Your task to perform on an android device: turn off location history Image 0: 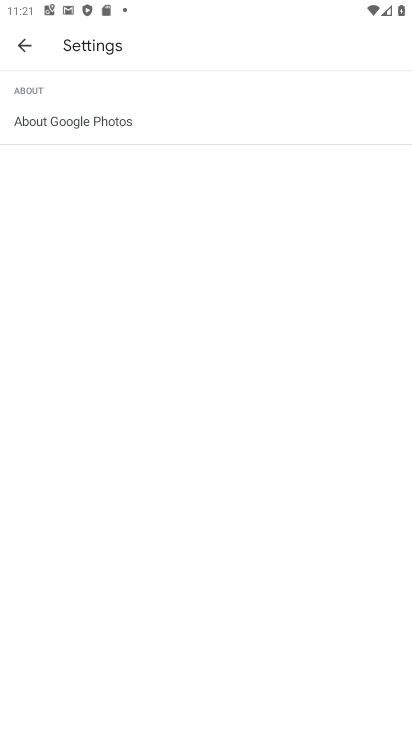
Step 0: press home button
Your task to perform on an android device: turn off location history Image 1: 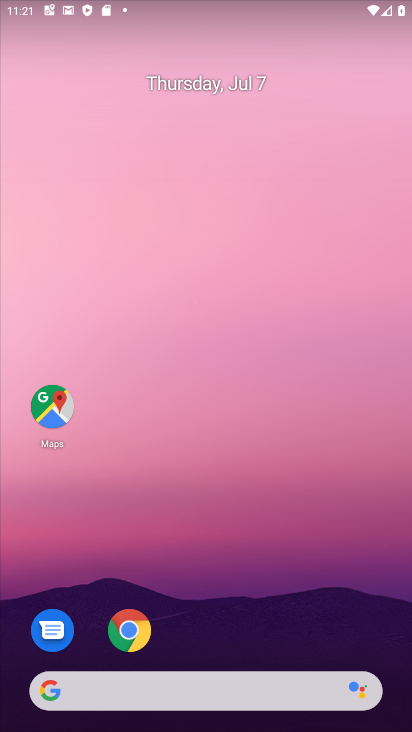
Step 1: drag from (201, 518) to (201, 246)
Your task to perform on an android device: turn off location history Image 2: 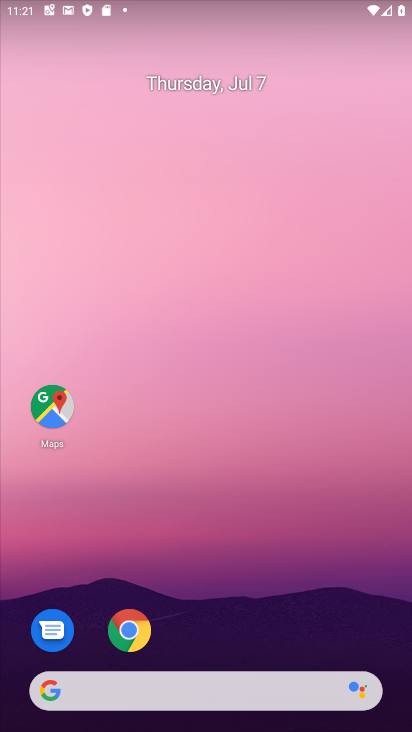
Step 2: drag from (195, 644) to (181, 124)
Your task to perform on an android device: turn off location history Image 3: 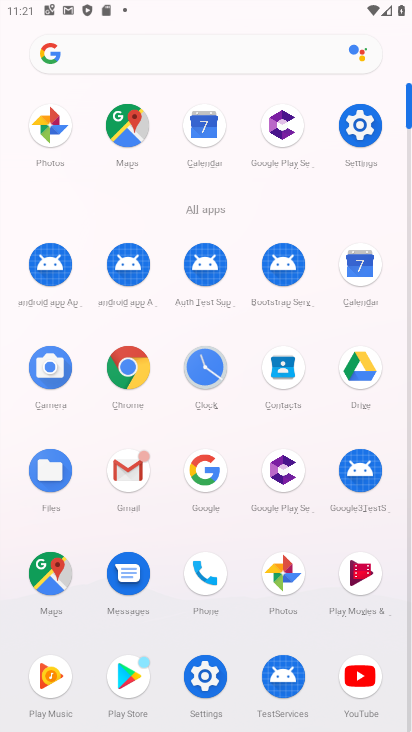
Step 3: click (339, 142)
Your task to perform on an android device: turn off location history Image 4: 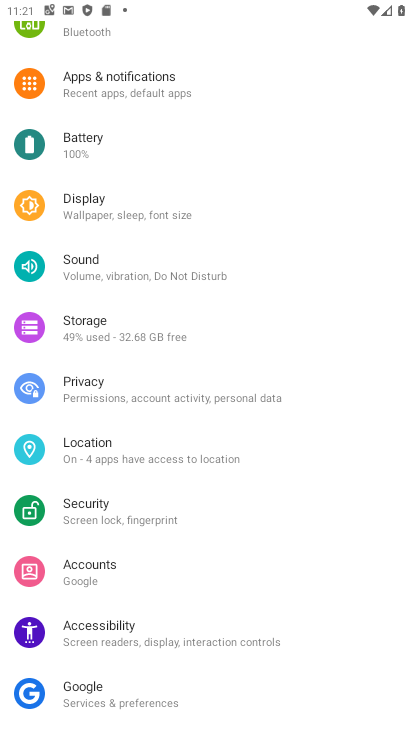
Step 4: click (90, 452)
Your task to perform on an android device: turn off location history Image 5: 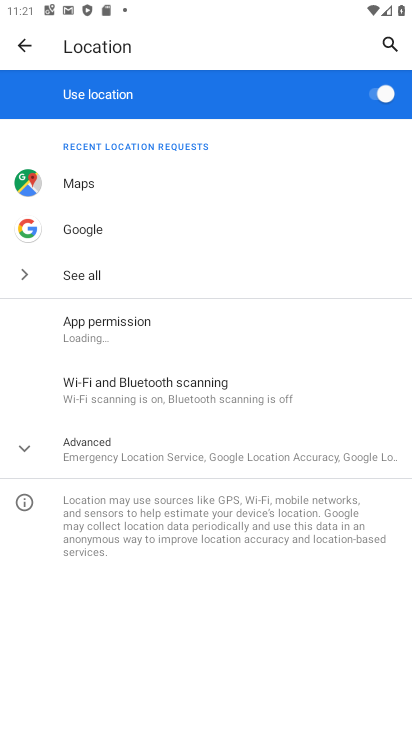
Step 5: click (129, 443)
Your task to perform on an android device: turn off location history Image 6: 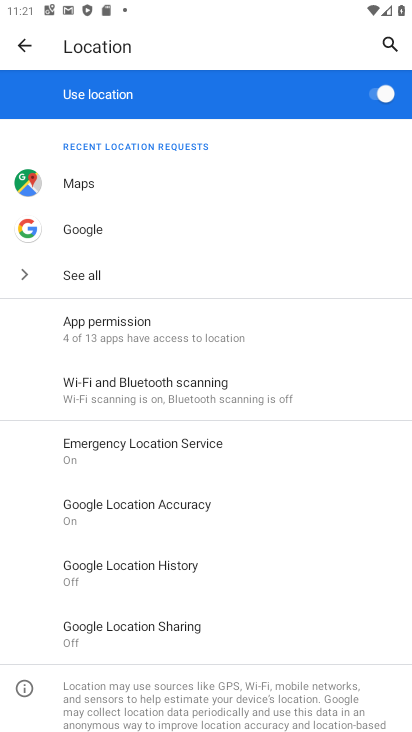
Step 6: click (125, 563)
Your task to perform on an android device: turn off location history Image 7: 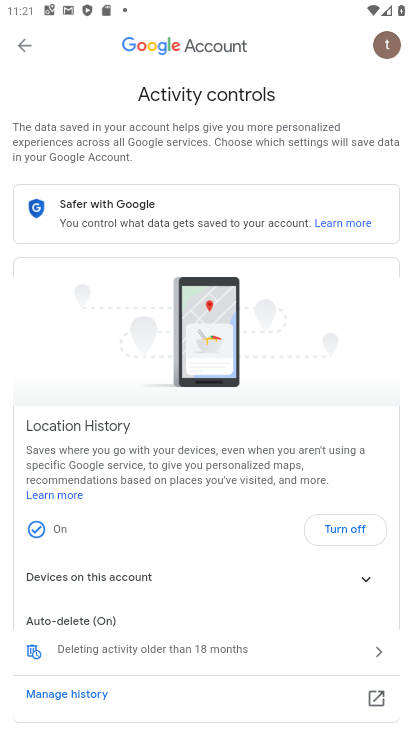
Step 7: click (341, 527)
Your task to perform on an android device: turn off location history Image 8: 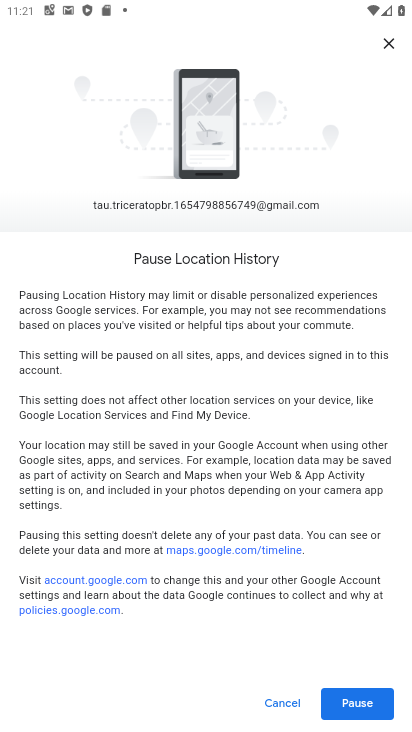
Step 8: click (358, 697)
Your task to perform on an android device: turn off location history Image 9: 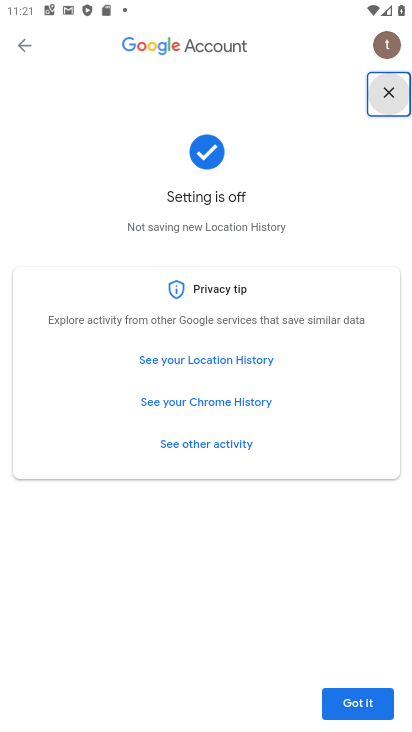
Step 9: task complete